Your task to perform on an android device: Go to CNN.com Image 0: 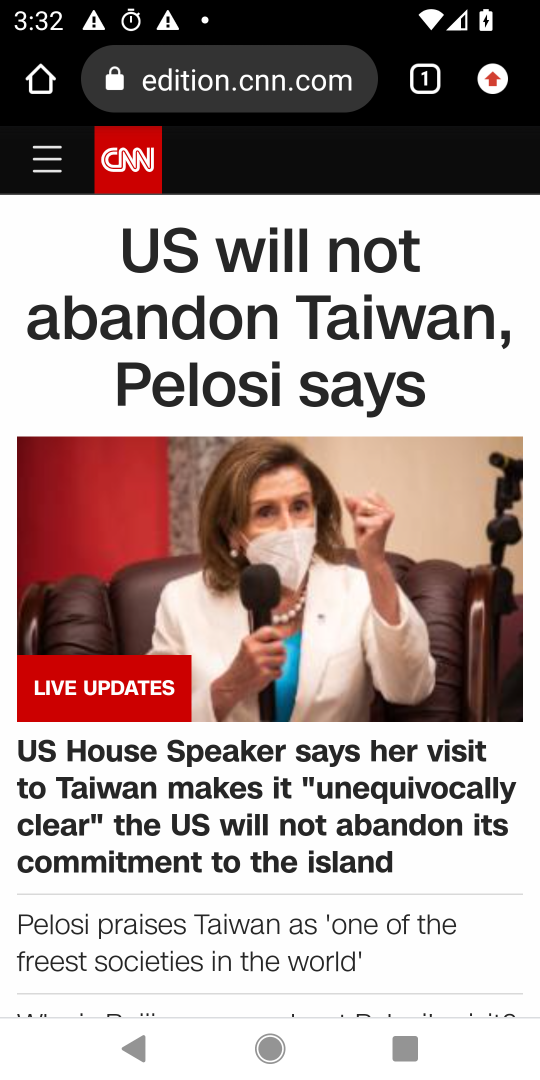
Step 0: press home button
Your task to perform on an android device: Go to CNN.com Image 1: 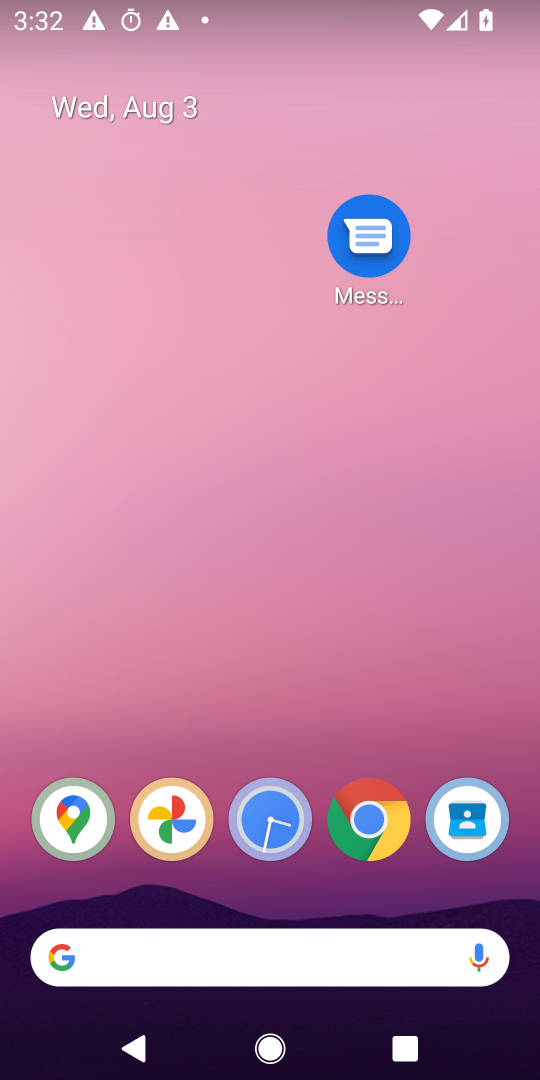
Step 1: click (122, 954)
Your task to perform on an android device: Go to CNN.com Image 2: 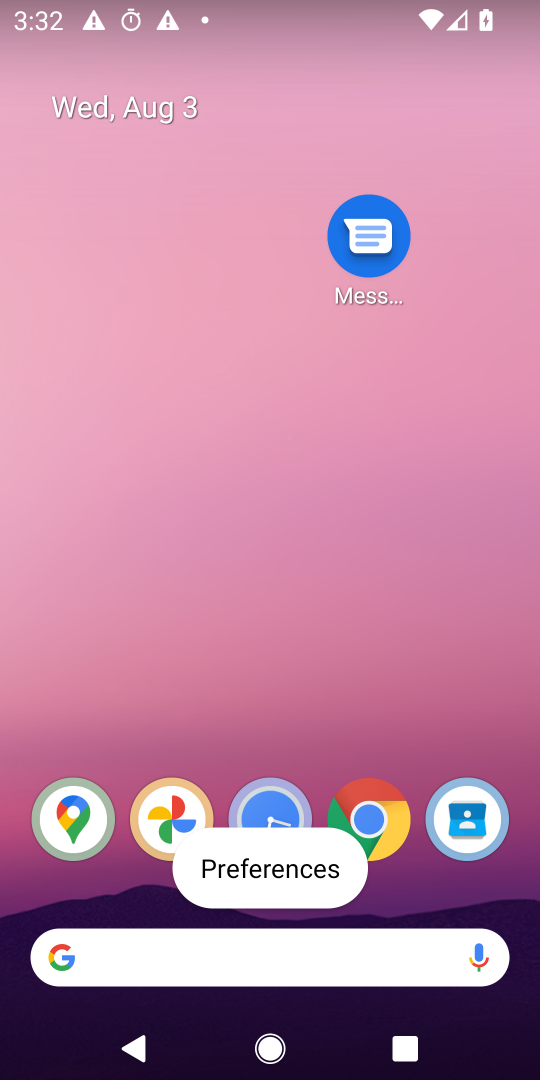
Step 2: click (129, 955)
Your task to perform on an android device: Go to CNN.com Image 3: 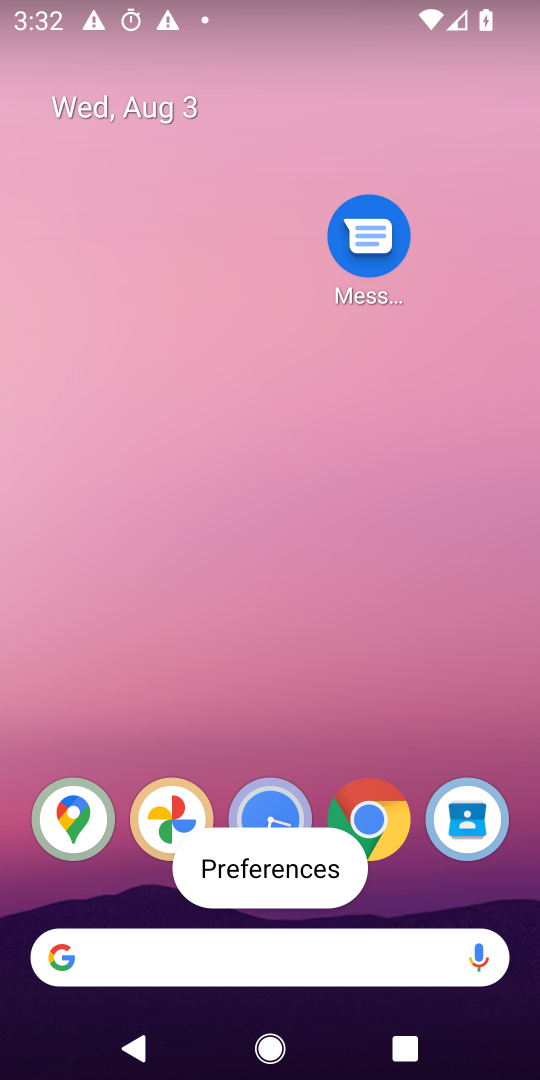
Step 3: click (132, 951)
Your task to perform on an android device: Go to CNN.com Image 4: 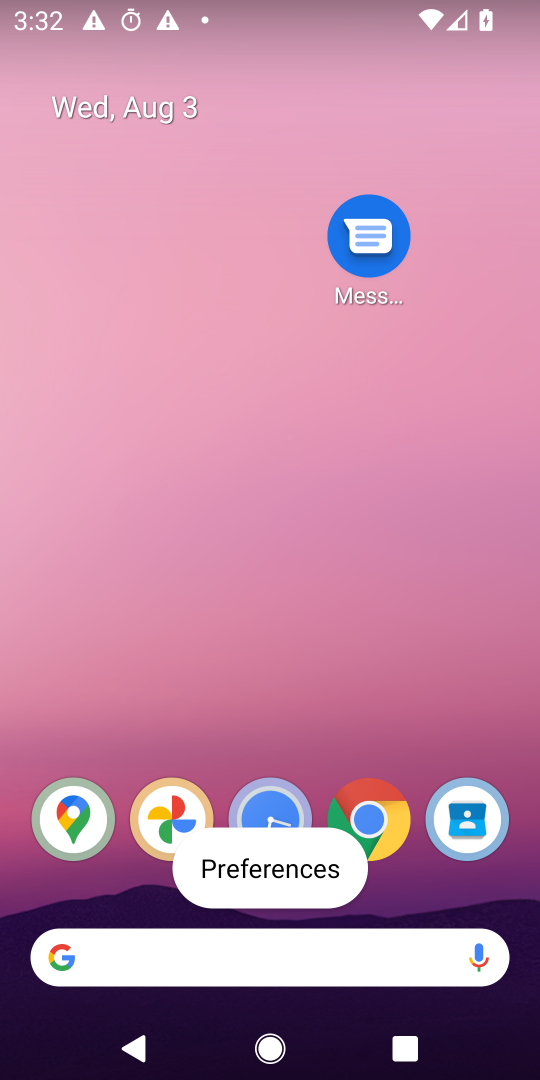
Step 4: click (118, 971)
Your task to perform on an android device: Go to CNN.com Image 5: 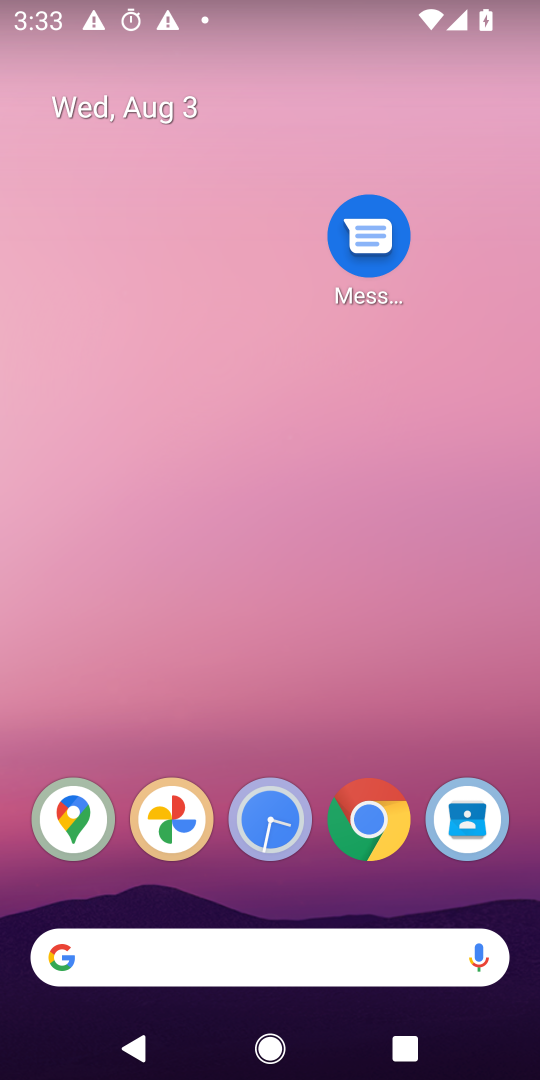
Step 5: click (221, 959)
Your task to perform on an android device: Go to CNN.com Image 6: 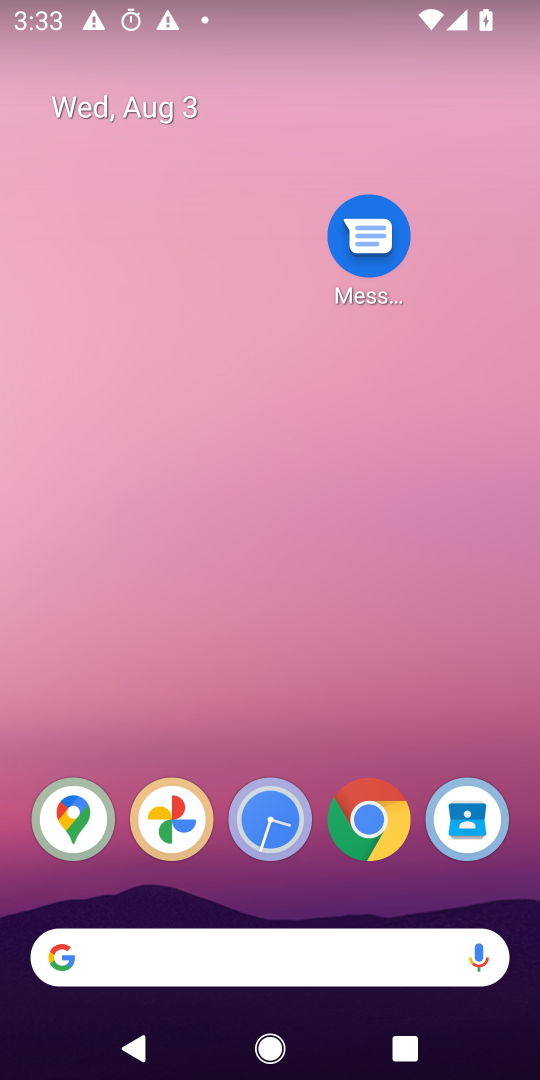
Step 6: click (209, 953)
Your task to perform on an android device: Go to CNN.com Image 7: 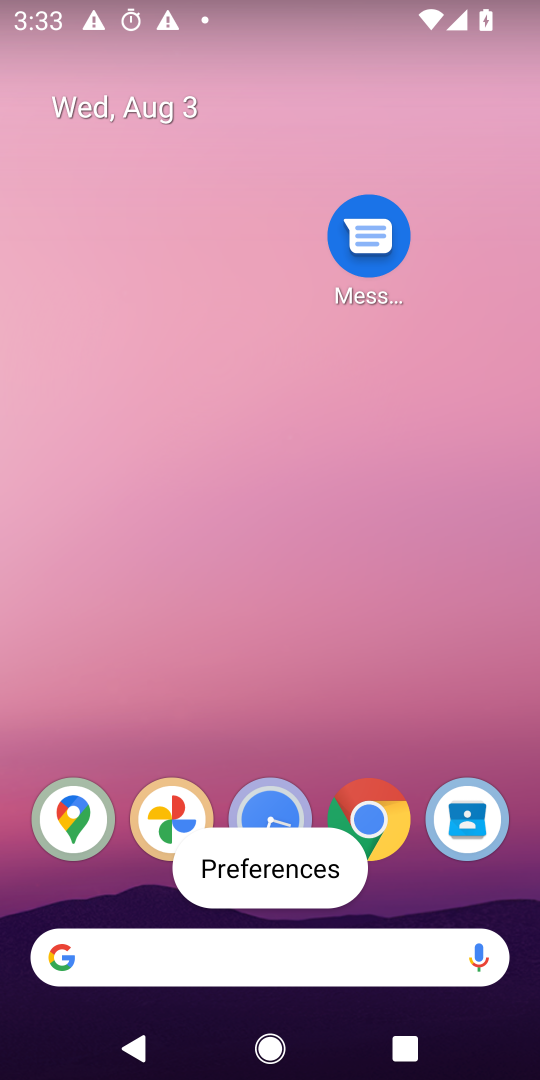
Step 7: task complete